Your task to perform on an android device: Show me productivity apps on the Play Store Image 0: 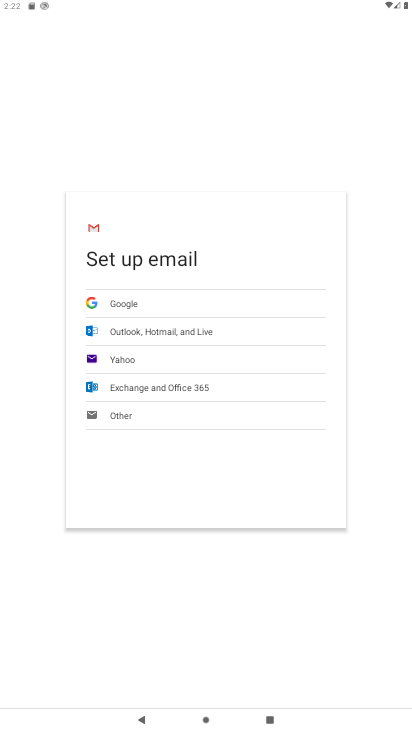
Step 0: press home button
Your task to perform on an android device: Show me productivity apps on the Play Store Image 1: 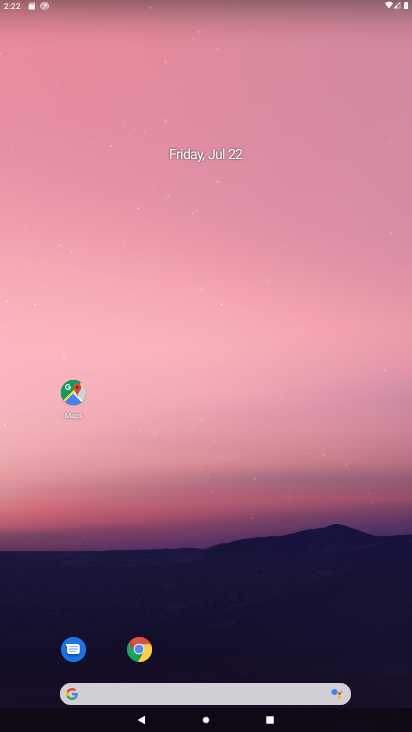
Step 1: drag from (220, 730) to (225, 153)
Your task to perform on an android device: Show me productivity apps on the Play Store Image 2: 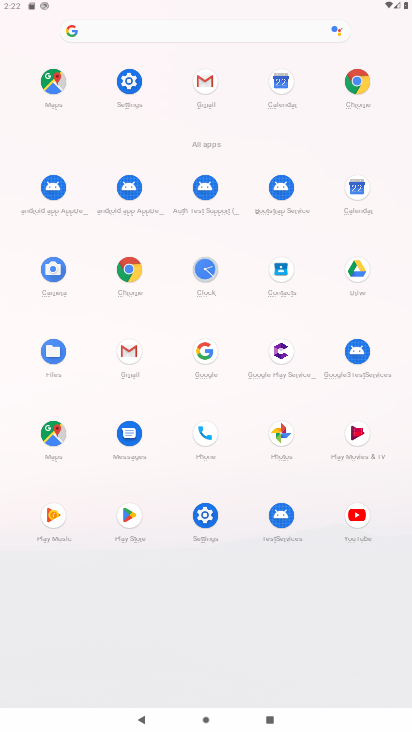
Step 2: click (130, 515)
Your task to perform on an android device: Show me productivity apps on the Play Store Image 3: 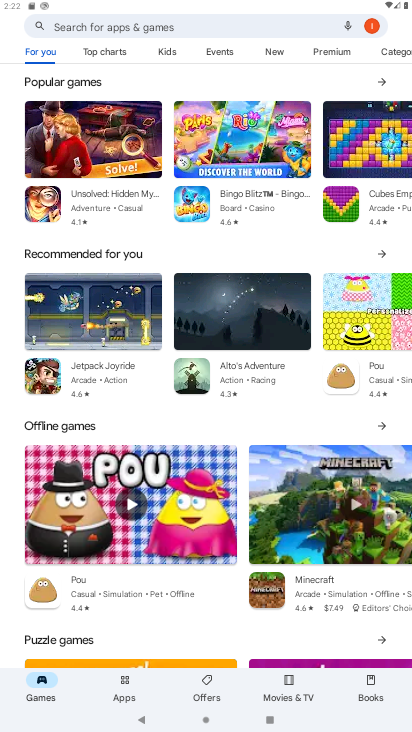
Step 3: click (116, 684)
Your task to perform on an android device: Show me productivity apps on the Play Store Image 4: 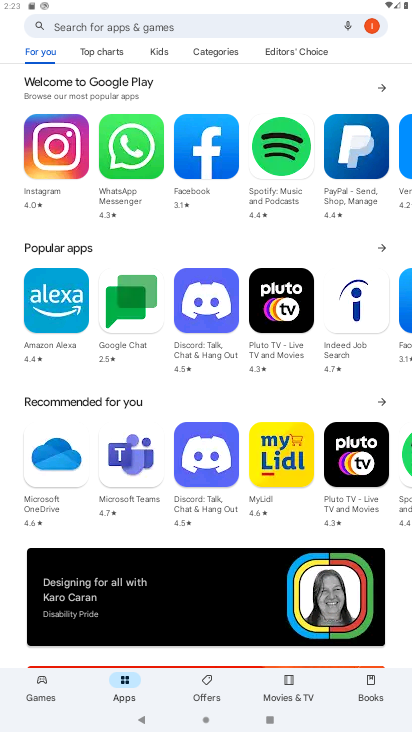
Step 4: click (216, 46)
Your task to perform on an android device: Show me productivity apps on the Play Store Image 5: 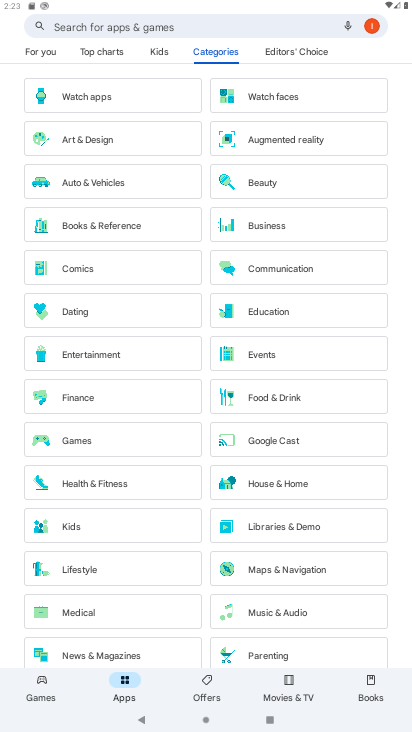
Step 5: drag from (379, 549) to (346, 268)
Your task to perform on an android device: Show me productivity apps on the Play Store Image 6: 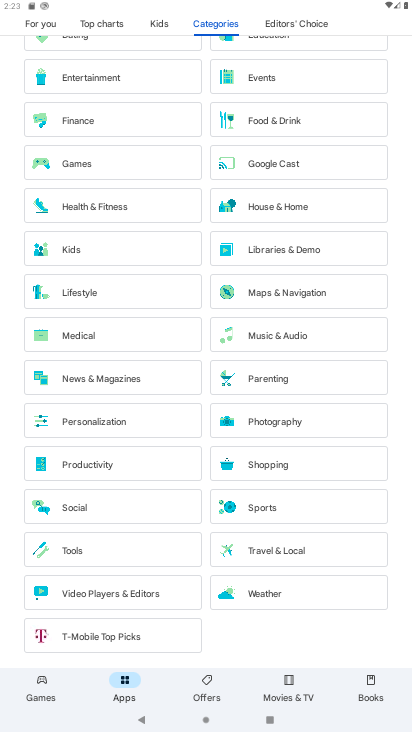
Step 6: click (73, 466)
Your task to perform on an android device: Show me productivity apps on the Play Store Image 7: 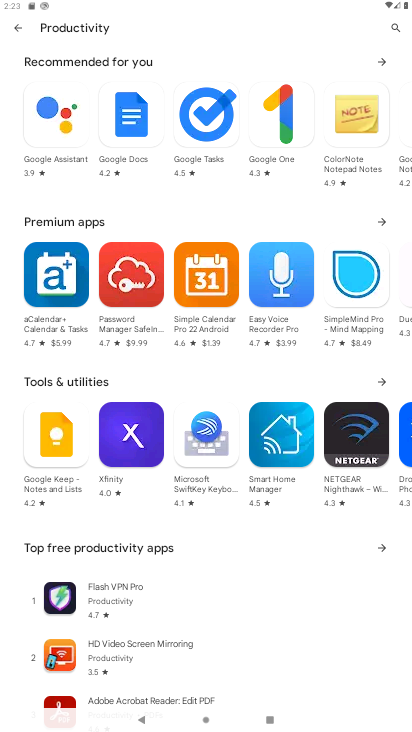
Step 7: task complete